Your task to perform on an android device: Search for a new bike on Walmart. Image 0: 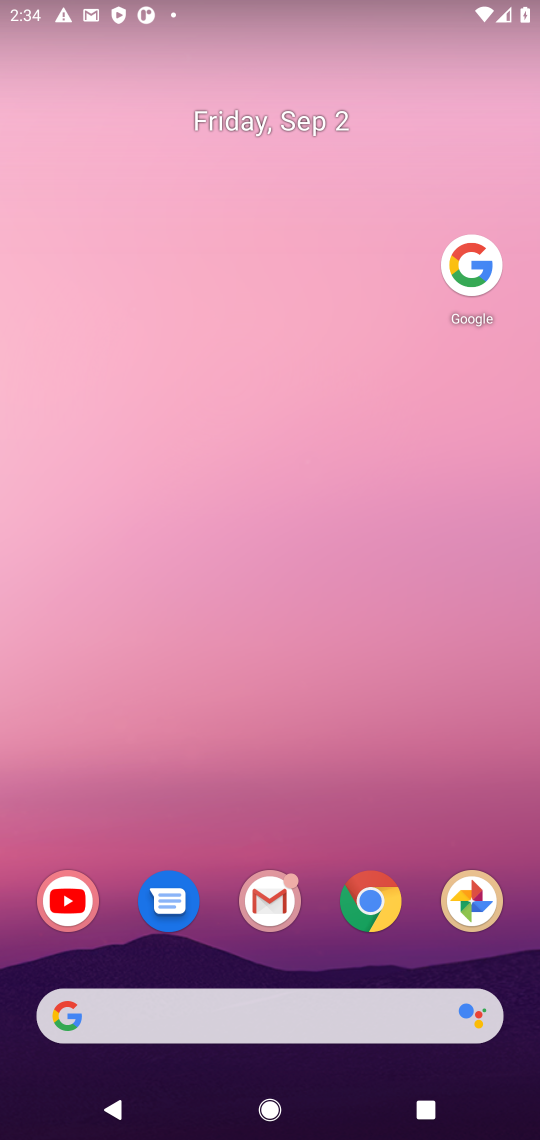
Step 0: click (486, 249)
Your task to perform on an android device: Search for a new bike on Walmart. Image 1: 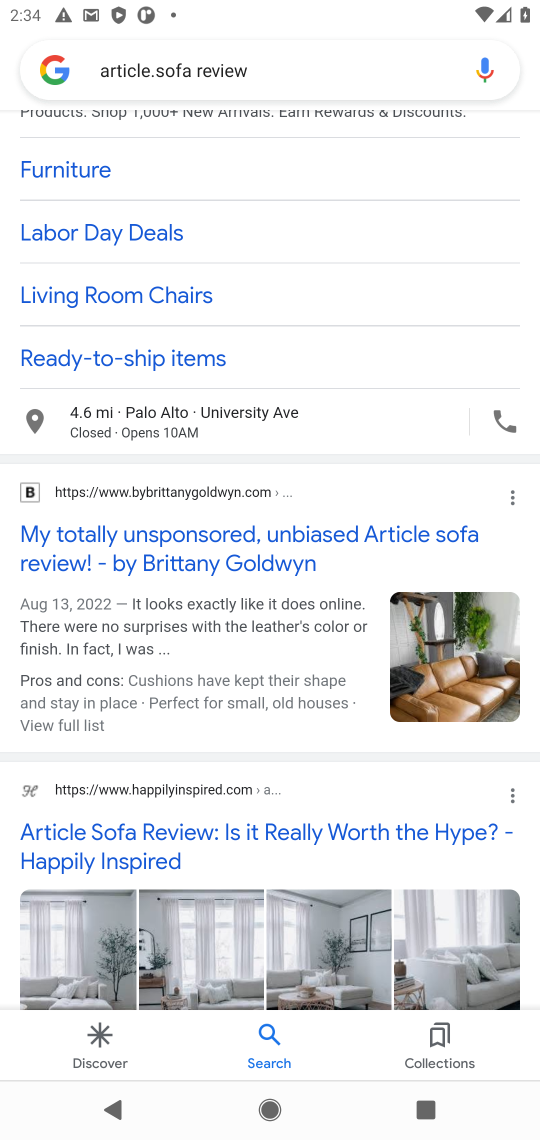
Step 1: click (288, 79)
Your task to perform on an android device: Search for a new bike on Walmart. Image 2: 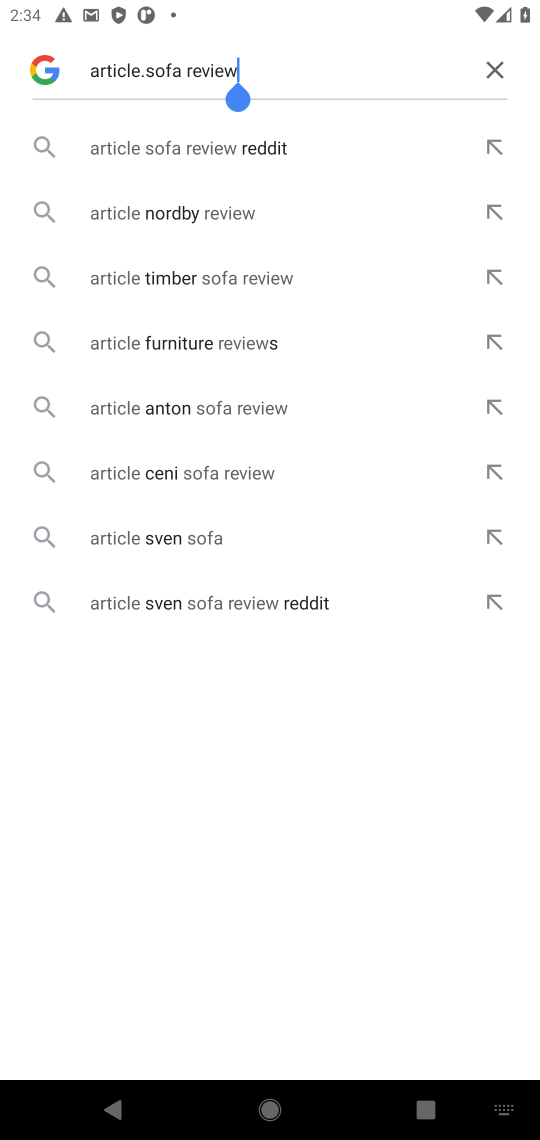
Step 2: click (487, 62)
Your task to perform on an android device: Search for a new bike on Walmart. Image 3: 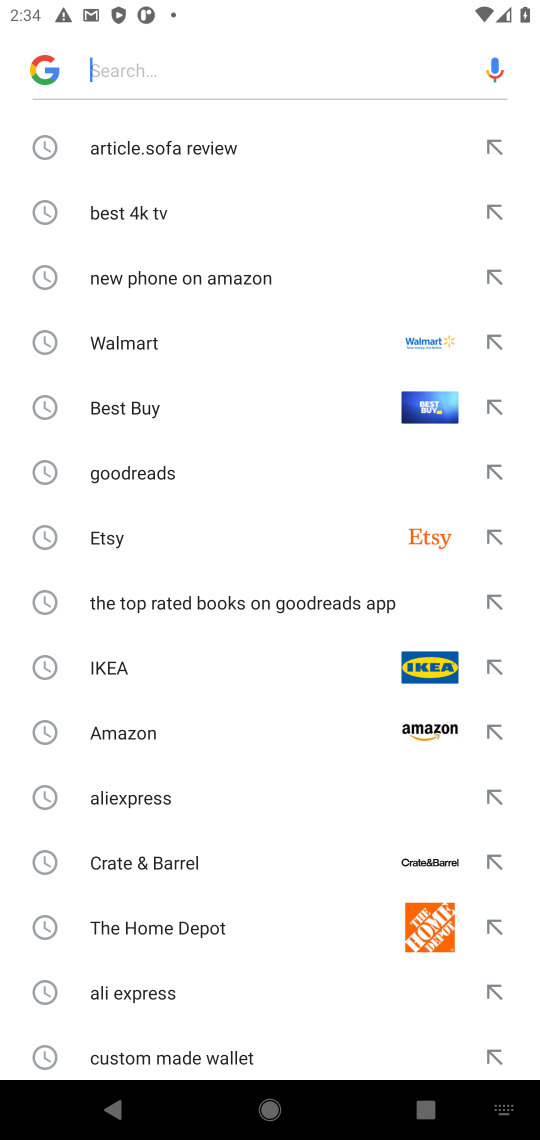
Step 3: click (293, 62)
Your task to perform on an android device: Search for a new bike on Walmart. Image 4: 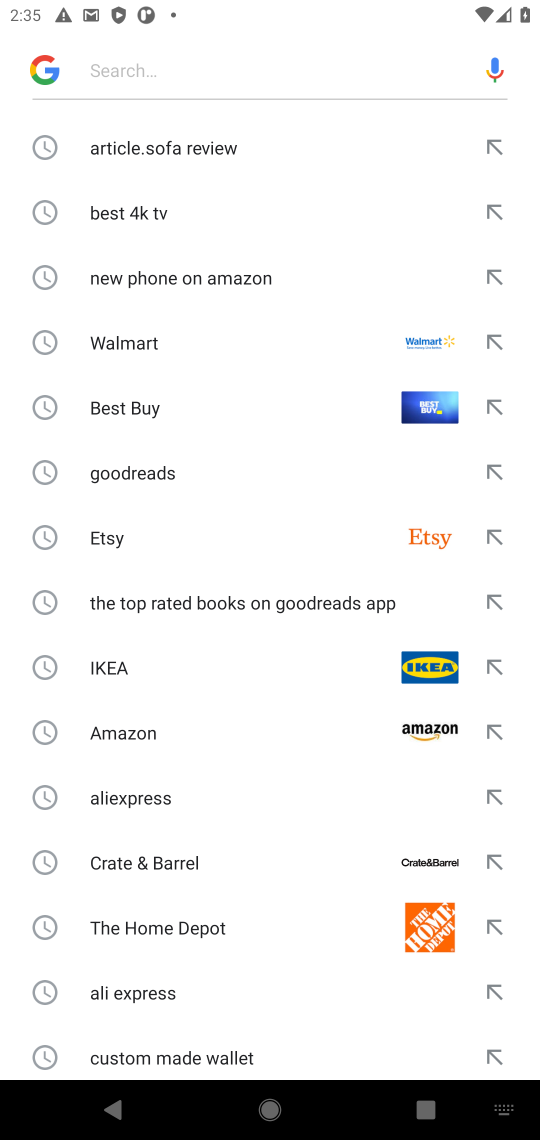
Step 4: type "new bike on Walmart "
Your task to perform on an android device: Search for a new bike on Walmart. Image 5: 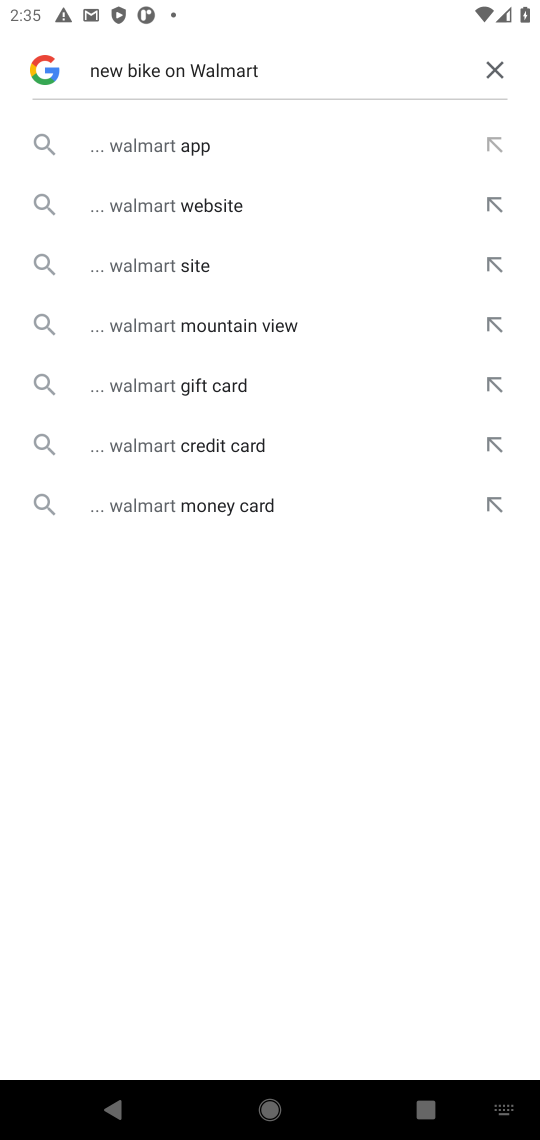
Step 5: click (217, 130)
Your task to perform on an android device: Search for a new bike on Walmart. Image 6: 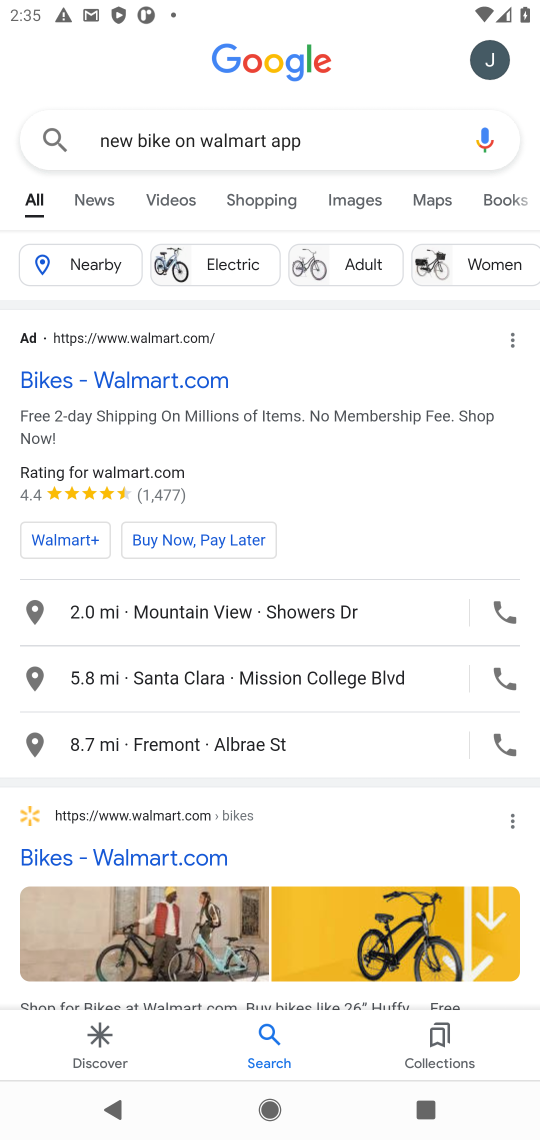
Step 6: task complete